Your task to perform on an android device: clear all cookies in the chrome app Image 0: 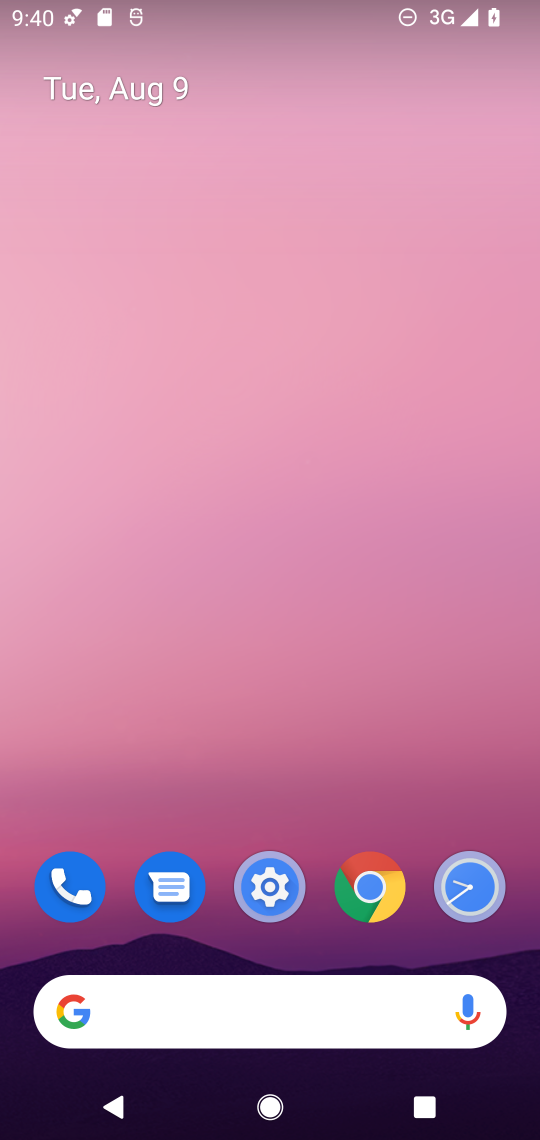
Step 0: click (379, 927)
Your task to perform on an android device: clear all cookies in the chrome app Image 1: 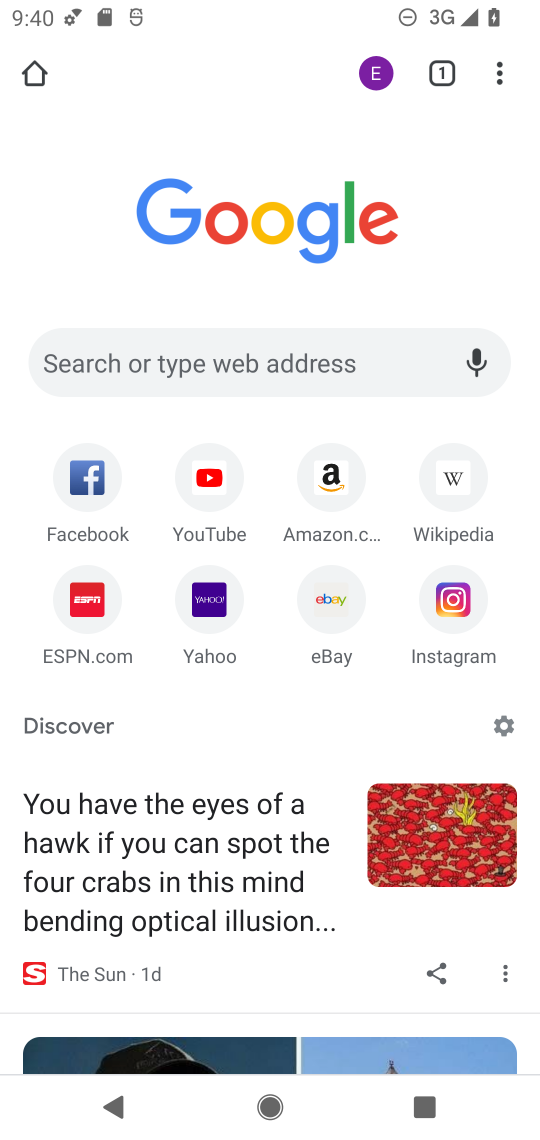
Step 1: click (507, 83)
Your task to perform on an android device: clear all cookies in the chrome app Image 2: 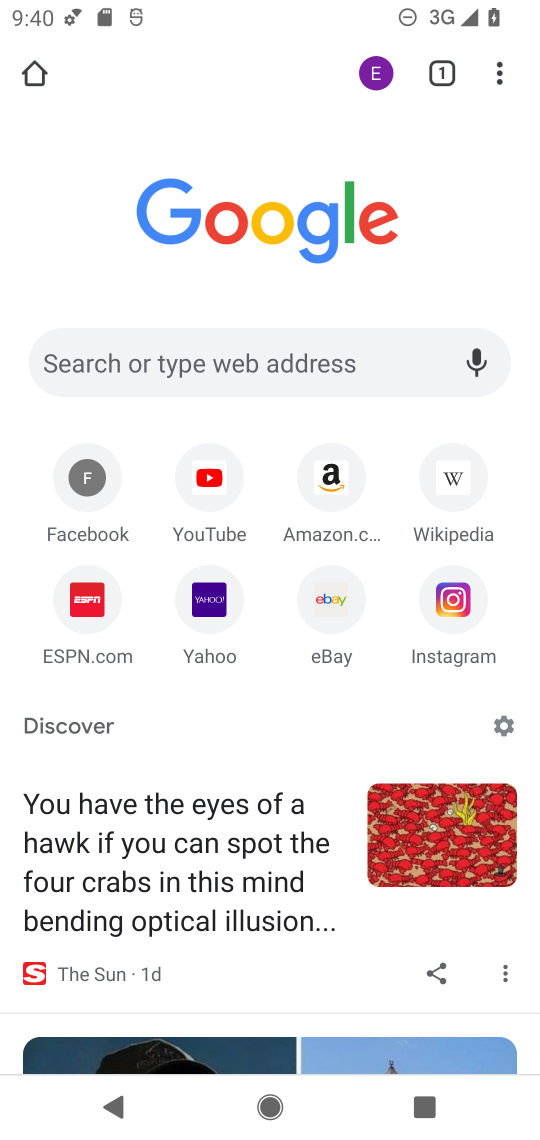
Step 2: click (505, 82)
Your task to perform on an android device: clear all cookies in the chrome app Image 3: 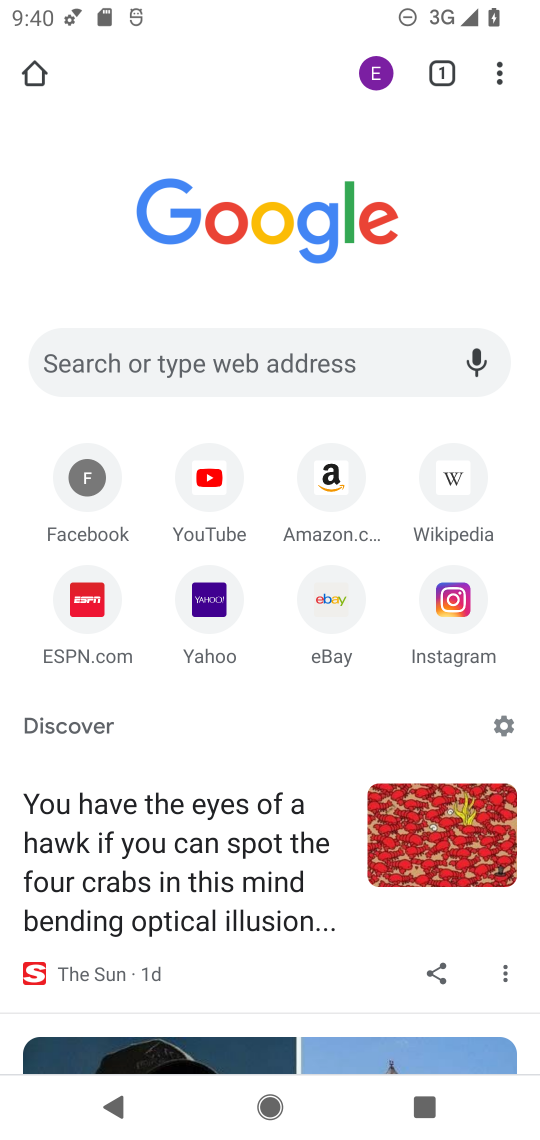
Step 3: task complete